Your task to perform on an android device: turn off wifi Image 0: 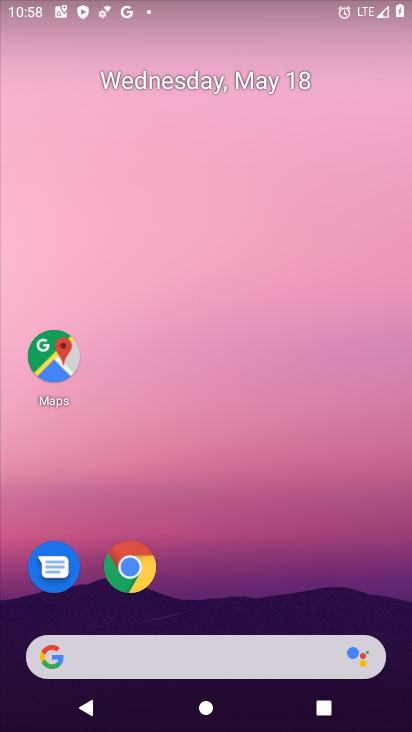
Step 0: drag from (229, 645) to (212, 194)
Your task to perform on an android device: turn off wifi Image 1: 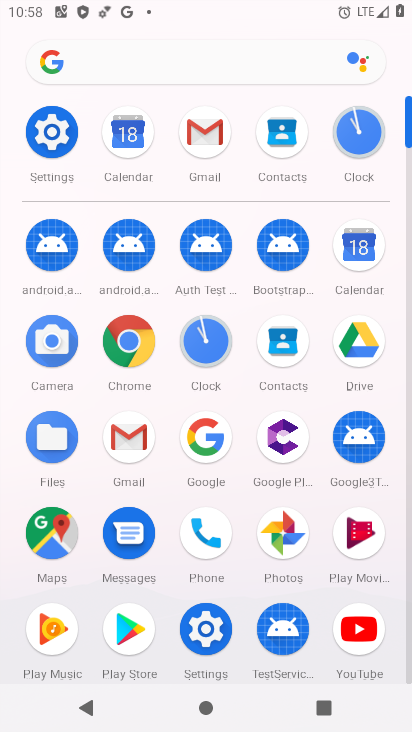
Step 1: click (62, 134)
Your task to perform on an android device: turn off wifi Image 2: 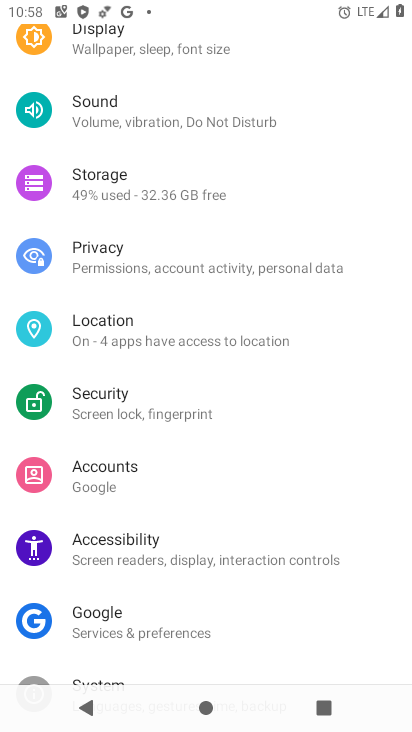
Step 2: drag from (142, 144) to (121, 551)
Your task to perform on an android device: turn off wifi Image 3: 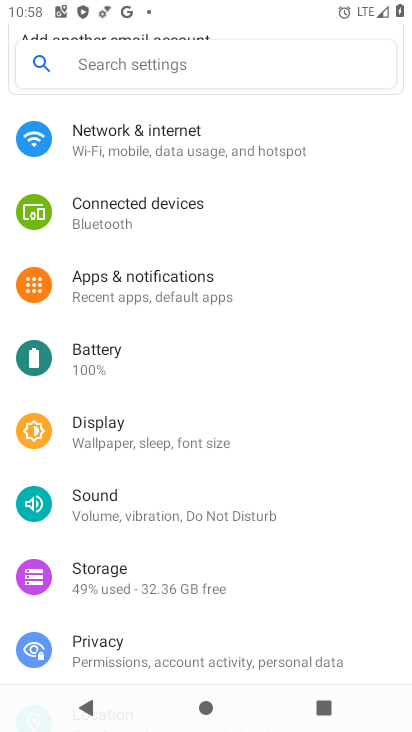
Step 3: click (120, 150)
Your task to perform on an android device: turn off wifi Image 4: 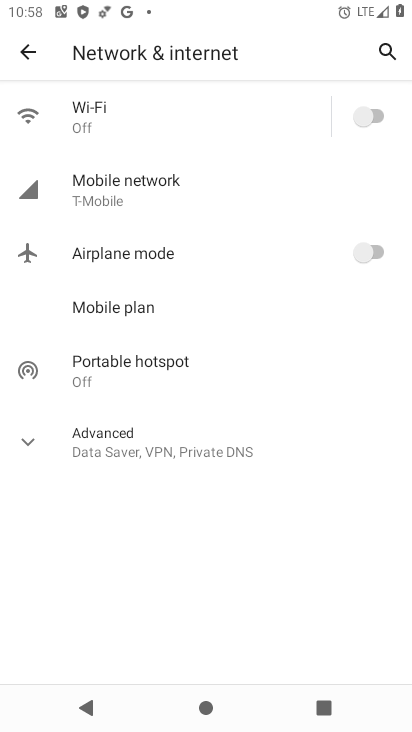
Step 4: task complete